Your task to perform on an android device: toggle notification dots Image 0: 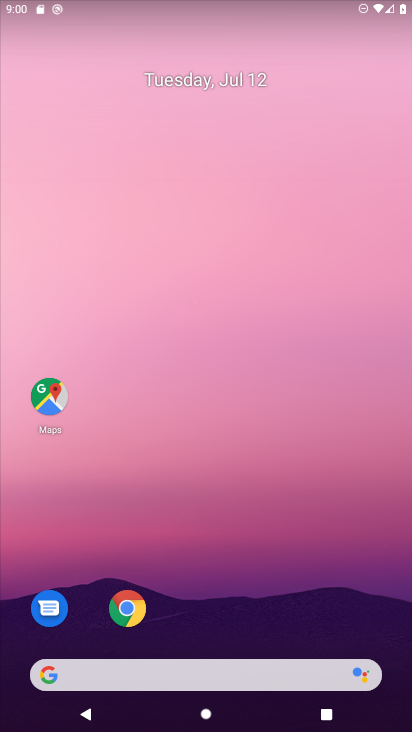
Step 0: drag from (217, 626) to (267, 25)
Your task to perform on an android device: toggle notification dots Image 1: 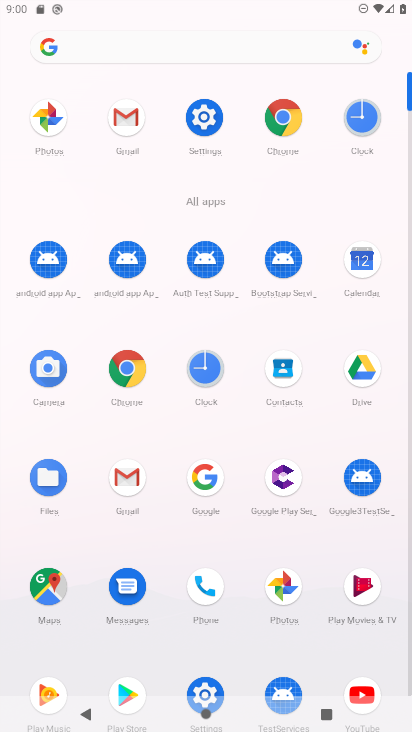
Step 1: click (206, 112)
Your task to perform on an android device: toggle notification dots Image 2: 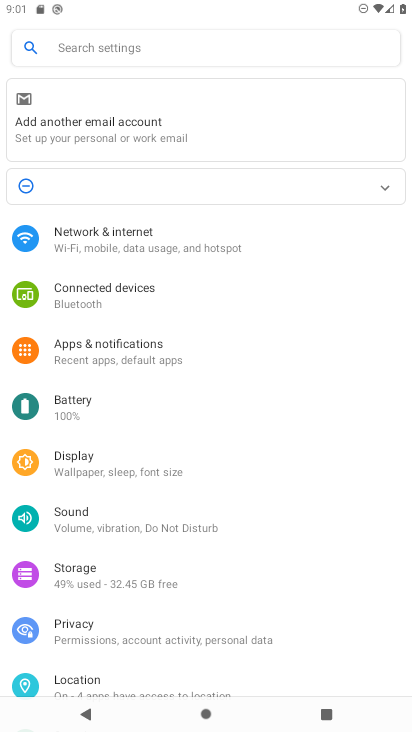
Step 2: click (91, 339)
Your task to perform on an android device: toggle notification dots Image 3: 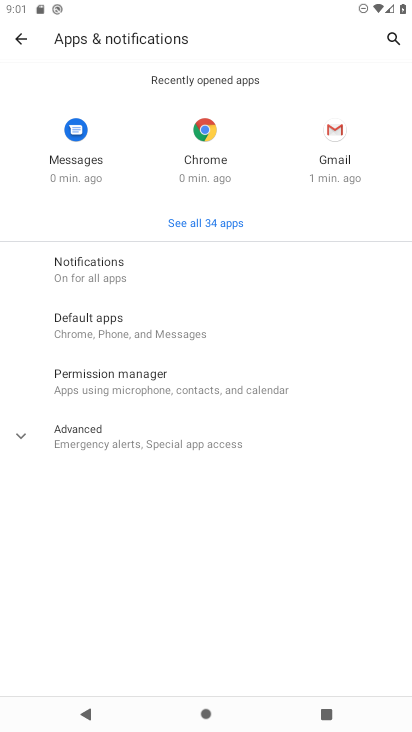
Step 3: click (146, 270)
Your task to perform on an android device: toggle notification dots Image 4: 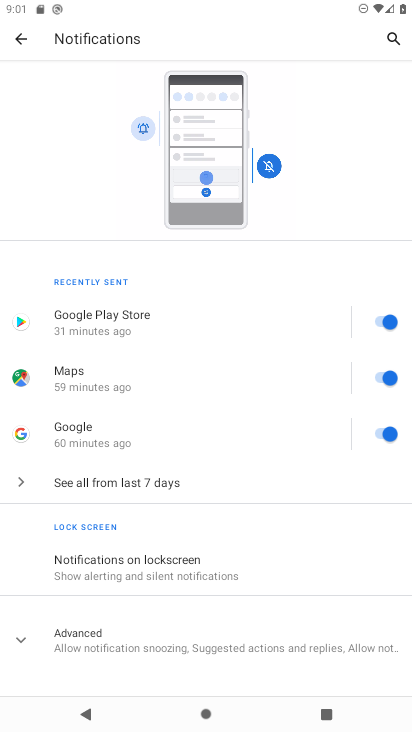
Step 4: click (199, 568)
Your task to perform on an android device: toggle notification dots Image 5: 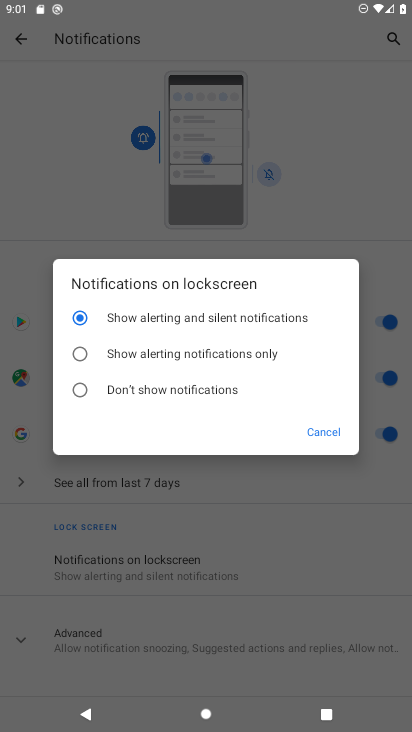
Step 5: click (321, 437)
Your task to perform on an android device: toggle notification dots Image 6: 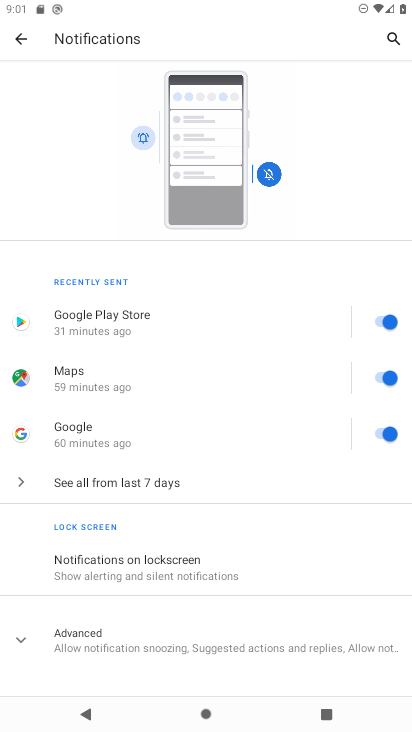
Step 6: click (149, 638)
Your task to perform on an android device: toggle notification dots Image 7: 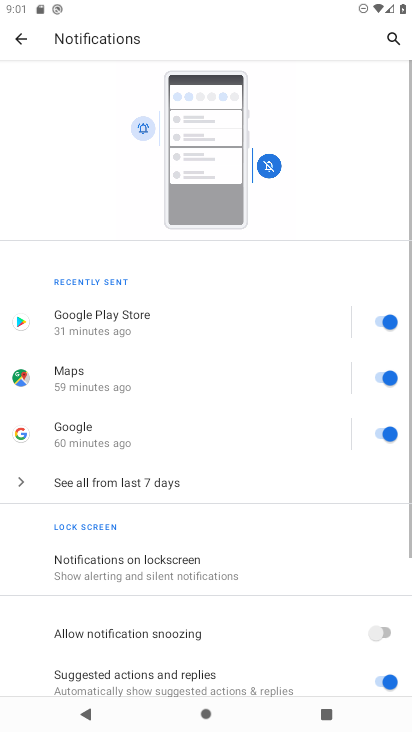
Step 7: drag from (149, 638) to (194, 212)
Your task to perform on an android device: toggle notification dots Image 8: 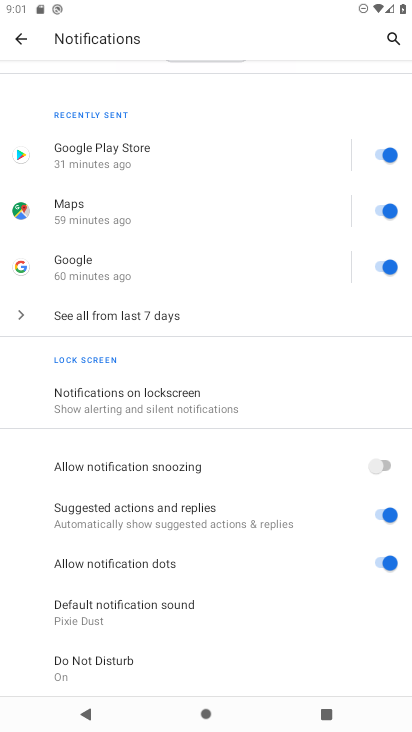
Step 8: click (391, 556)
Your task to perform on an android device: toggle notification dots Image 9: 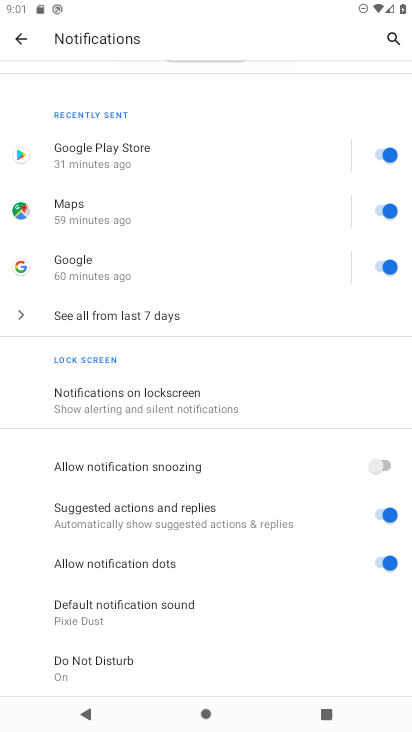
Step 9: click (391, 556)
Your task to perform on an android device: toggle notification dots Image 10: 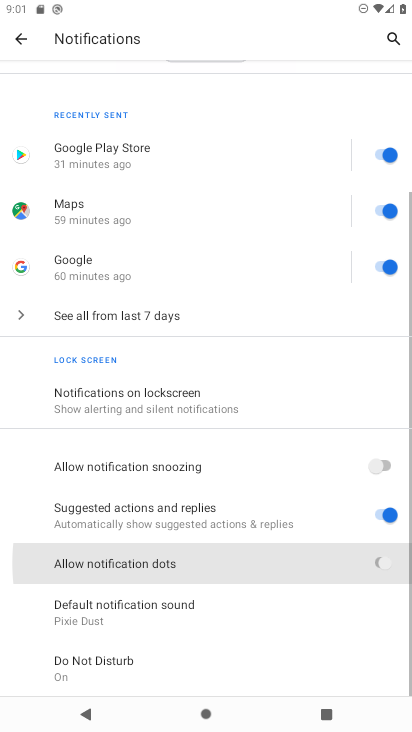
Step 10: click (391, 556)
Your task to perform on an android device: toggle notification dots Image 11: 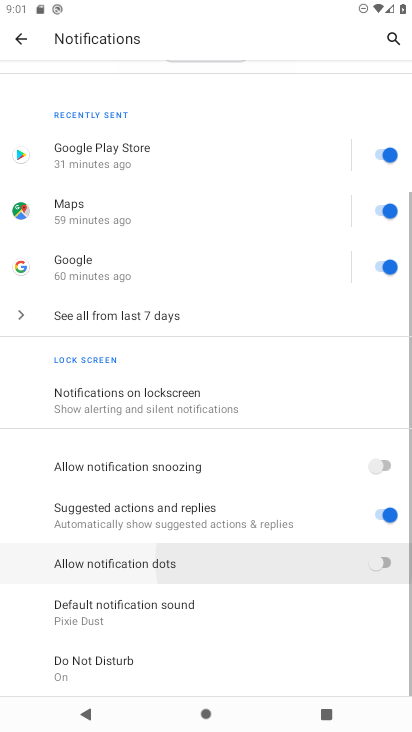
Step 11: click (391, 556)
Your task to perform on an android device: toggle notification dots Image 12: 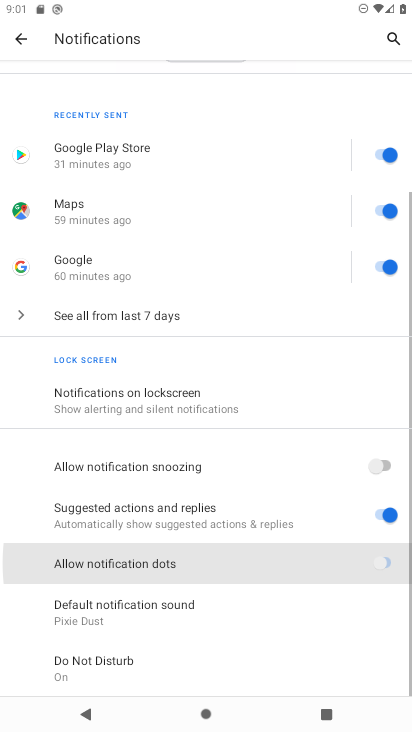
Step 12: click (391, 556)
Your task to perform on an android device: toggle notification dots Image 13: 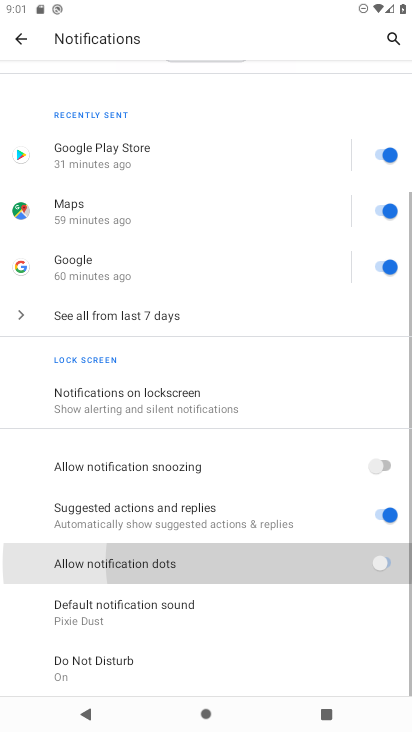
Step 13: click (391, 556)
Your task to perform on an android device: toggle notification dots Image 14: 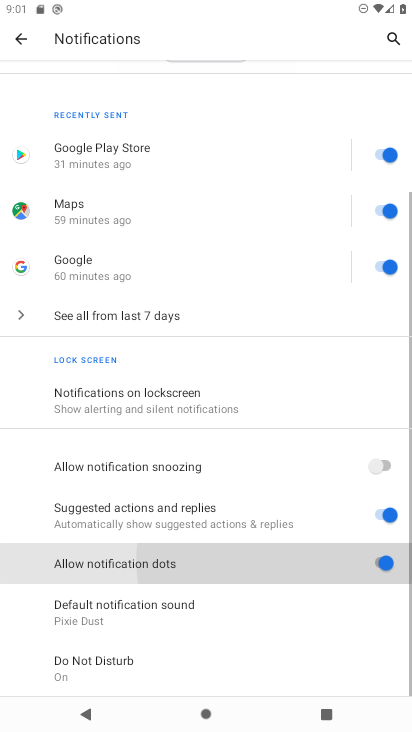
Step 14: click (391, 556)
Your task to perform on an android device: toggle notification dots Image 15: 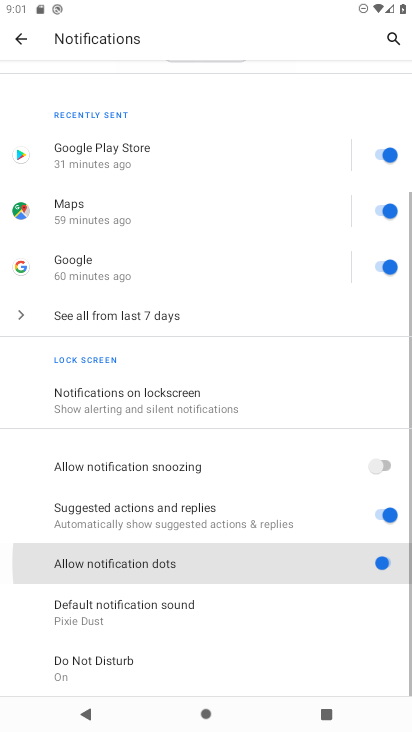
Step 15: click (391, 556)
Your task to perform on an android device: toggle notification dots Image 16: 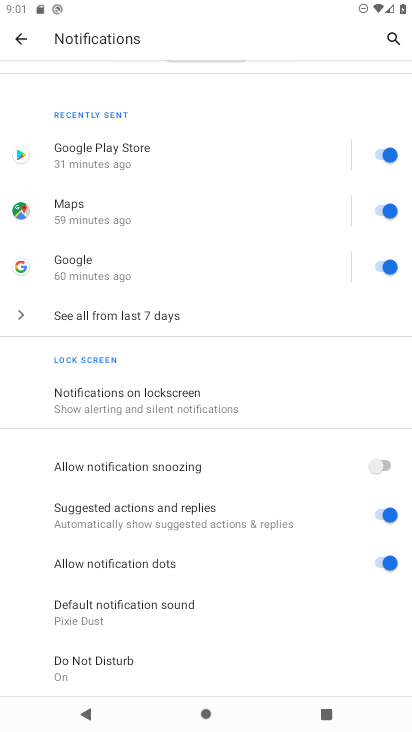
Step 16: task complete